Your task to perform on an android device: star an email in the gmail app Image 0: 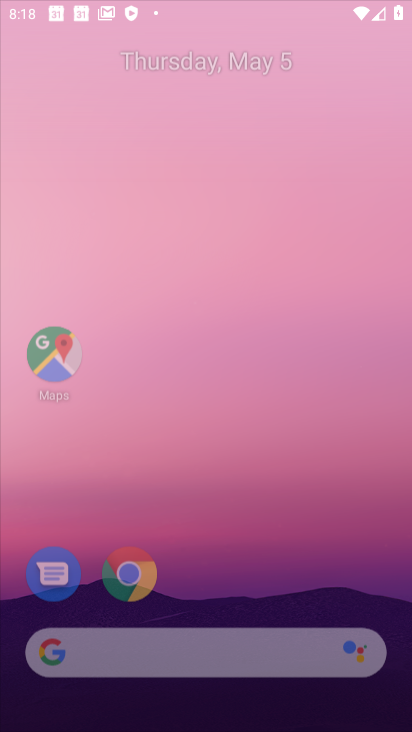
Step 0: click (213, 468)
Your task to perform on an android device: star an email in the gmail app Image 1: 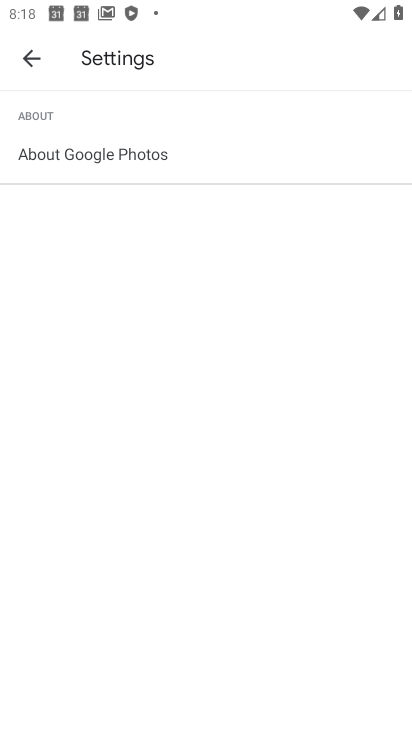
Step 1: press home button
Your task to perform on an android device: star an email in the gmail app Image 2: 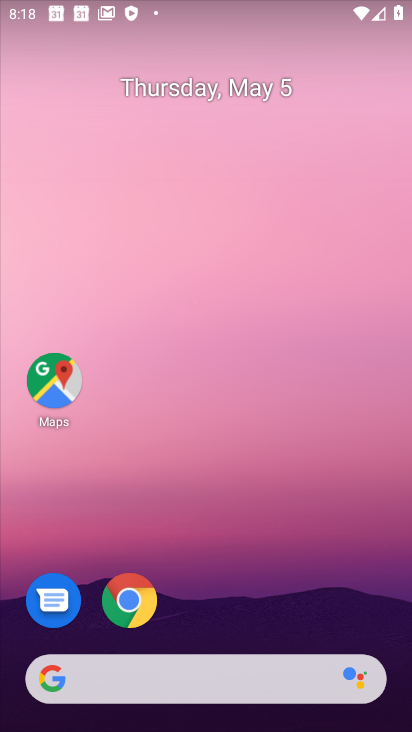
Step 2: drag from (338, 610) to (306, 110)
Your task to perform on an android device: star an email in the gmail app Image 3: 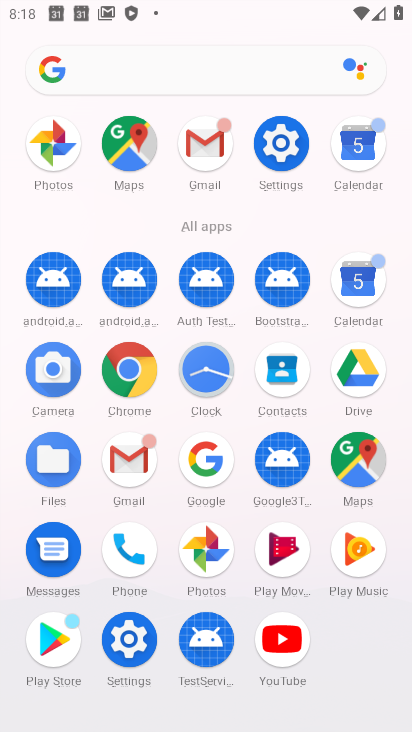
Step 3: click (128, 453)
Your task to perform on an android device: star an email in the gmail app Image 4: 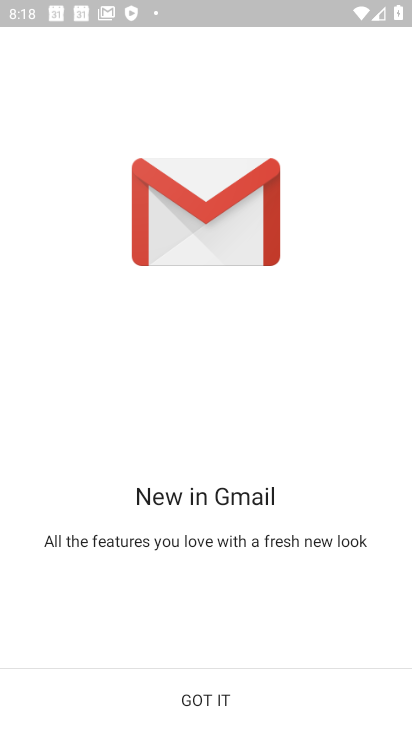
Step 4: click (213, 699)
Your task to perform on an android device: star an email in the gmail app Image 5: 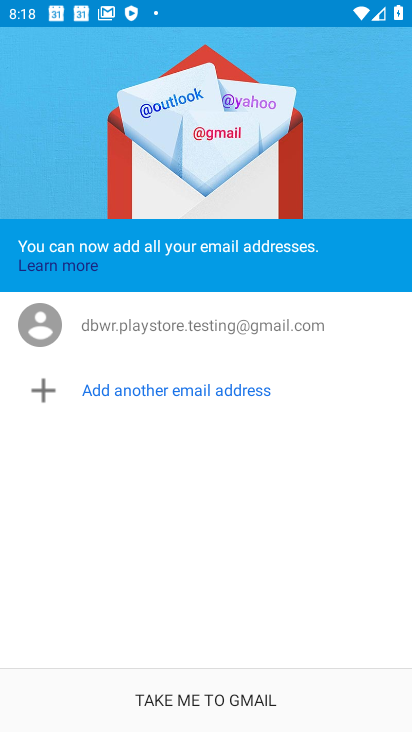
Step 5: click (193, 691)
Your task to perform on an android device: star an email in the gmail app Image 6: 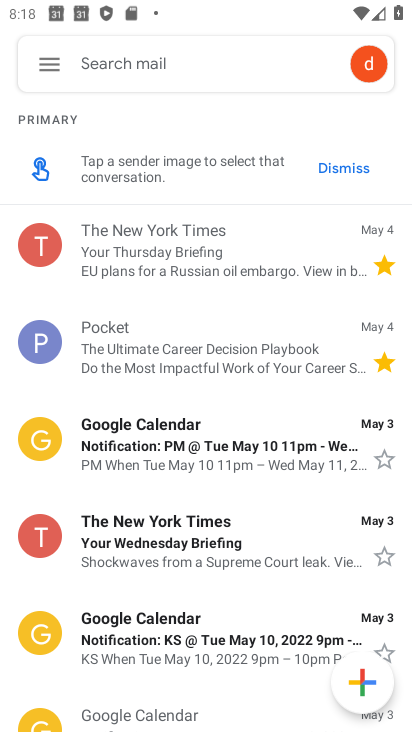
Step 6: click (384, 455)
Your task to perform on an android device: star an email in the gmail app Image 7: 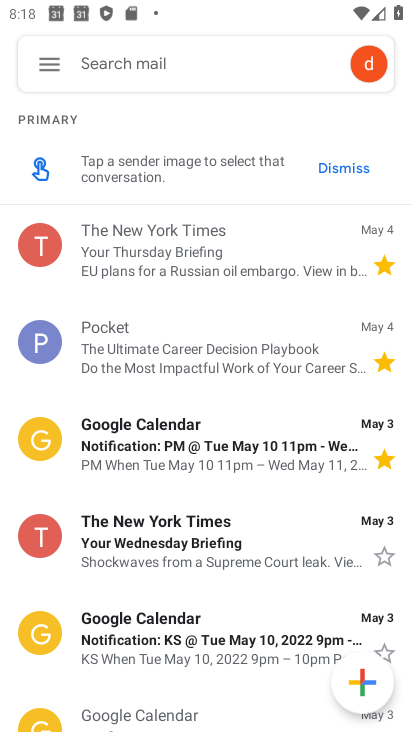
Step 7: task complete